Your task to perform on an android device: Go to Amazon Image 0: 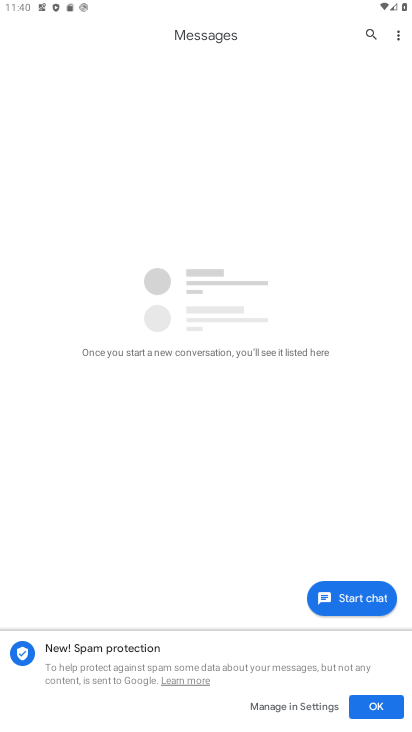
Step 0: press home button
Your task to perform on an android device: Go to Amazon Image 1: 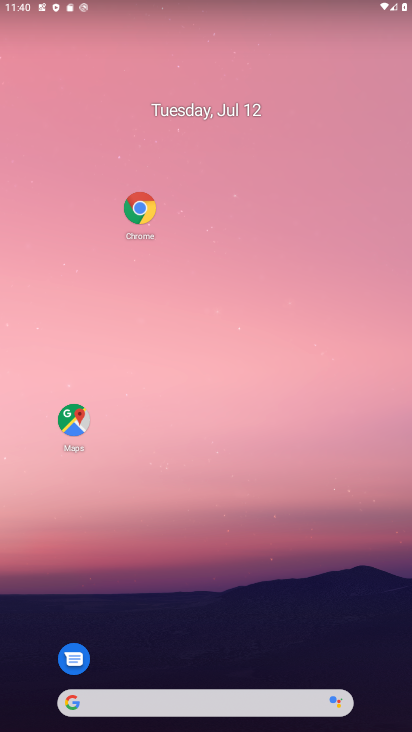
Step 1: drag from (208, 704) to (199, 112)
Your task to perform on an android device: Go to Amazon Image 2: 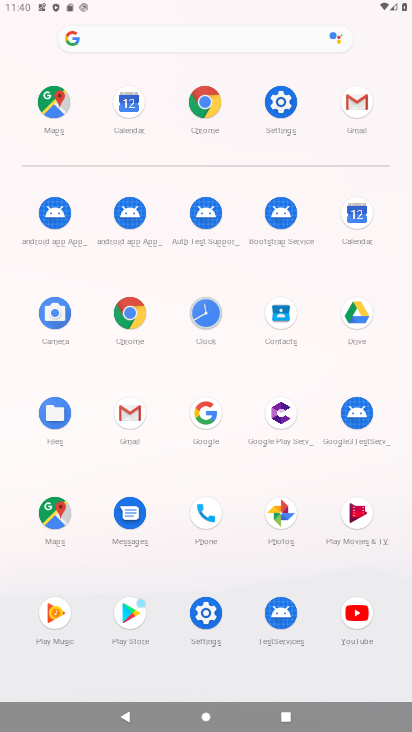
Step 2: click (129, 314)
Your task to perform on an android device: Go to Amazon Image 3: 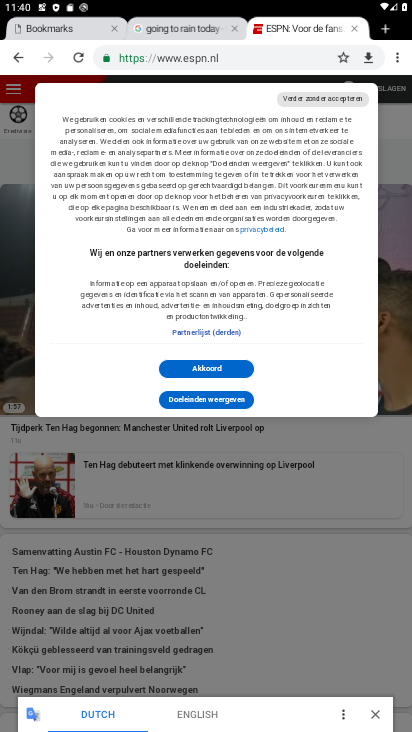
Step 3: click (240, 61)
Your task to perform on an android device: Go to Amazon Image 4: 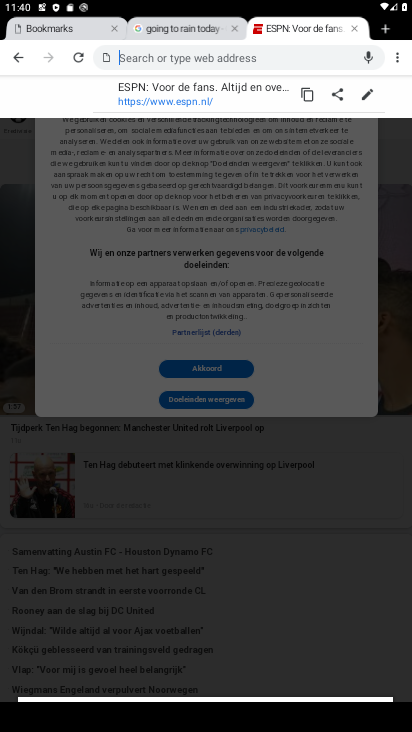
Step 4: type "amazon"
Your task to perform on an android device: Go to Amazon Image 5: 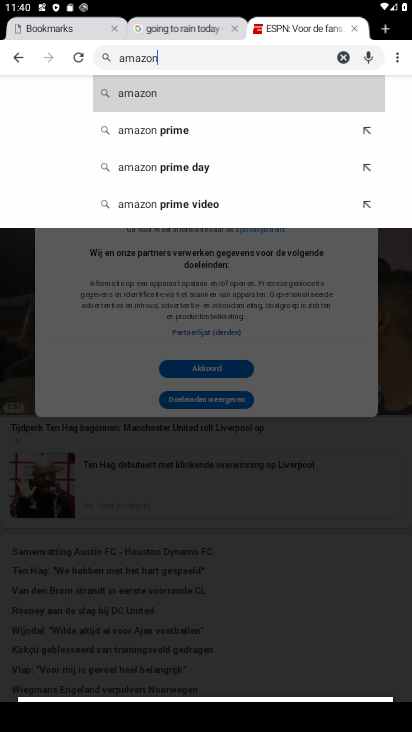
Step 5: click (156, 89)
Your task to perform on an android device: Go to Amazon Image 6: 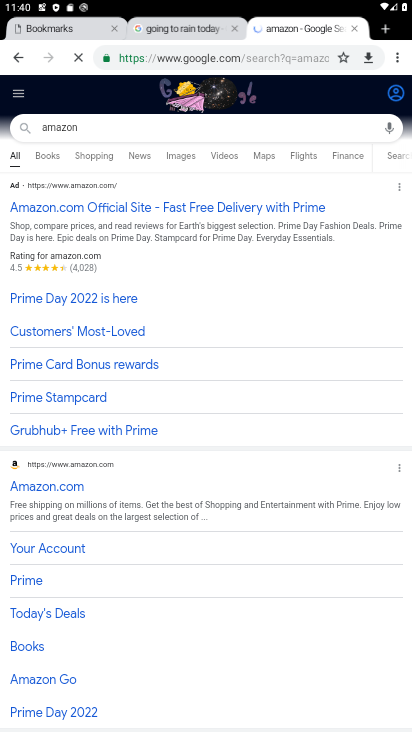
Step 6: click (74, 482)
Your task to perform on an android device: Go to Amazon Image 7: 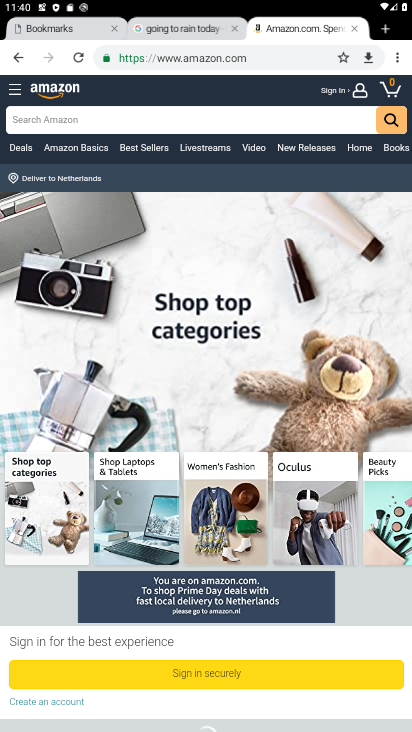
Step 7: task complete